Your task to perform on an android device: Open battery settings Image 0: 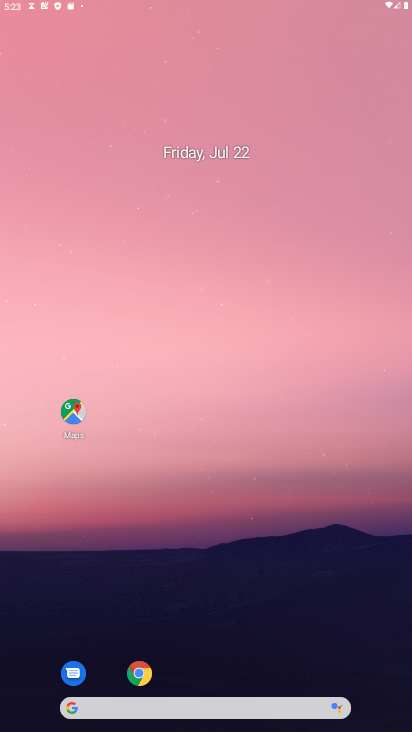
Step 0: press home button
Your task to perform on an android device: Open battery settings Image 1: 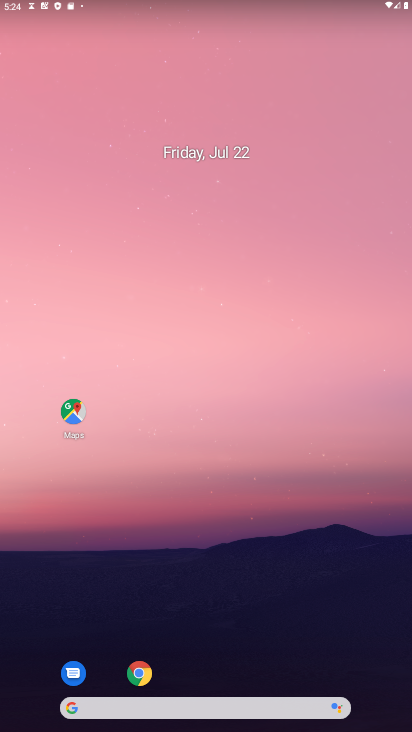
Step 1: drag from (237, 655) to (269, 121)
Your task to perform on an android device: Open battery settings Image 2: 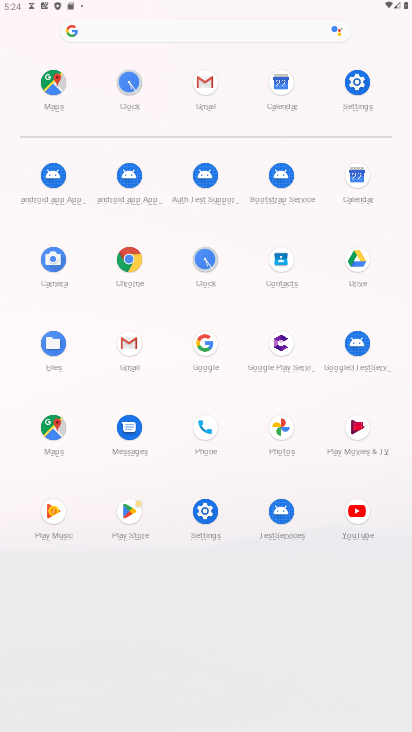
Step 2: click (355, 89)
Your task to perform on an android device: Open battery settings Image 3: 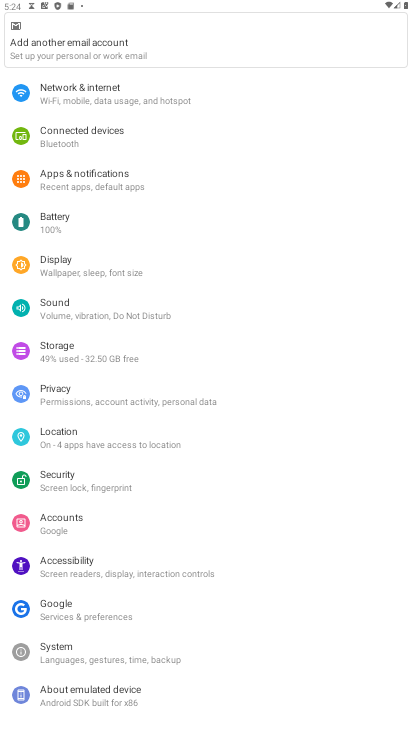
Step 3: click (55, 215)
Your task to perform on an android device: Open battery settings Image 4: 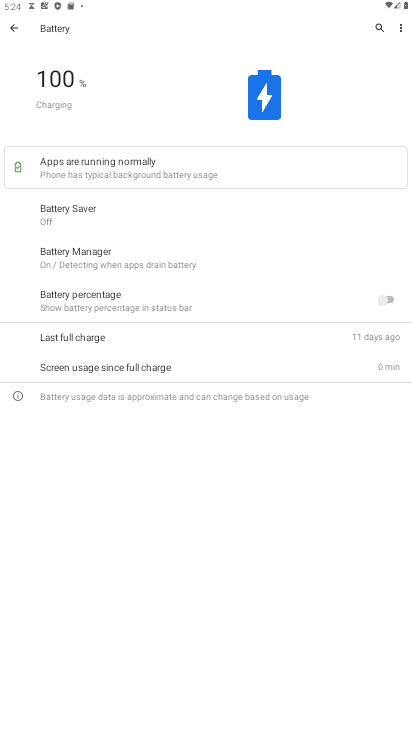
Step 4: task complete